Your task to perform on an android device: manage bookmarks in the chrome app Image 0: 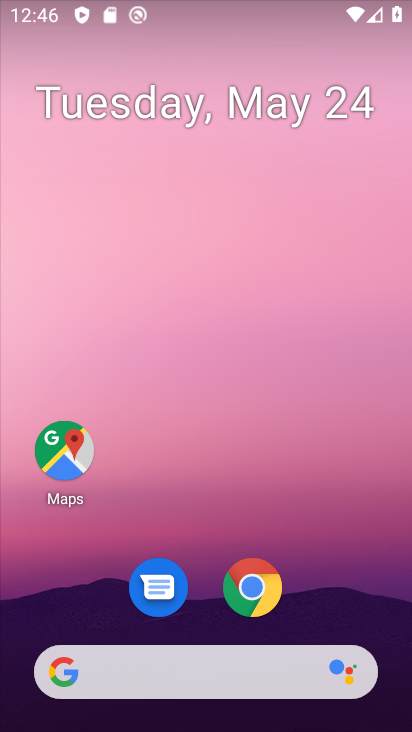
Step 0: click (263, 601)
Your task to perform on an android device: manage bookmarks in the chrome app Image 1: 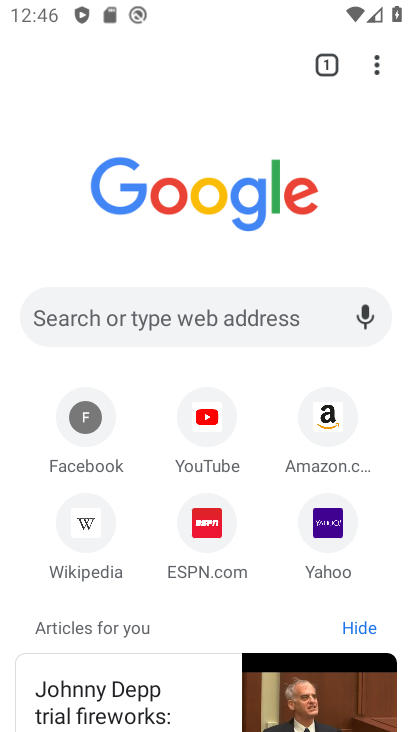
Step 1: click (380, 77)
Your task to perform on an android device: manage bookmarks in the chrome app Image 2: 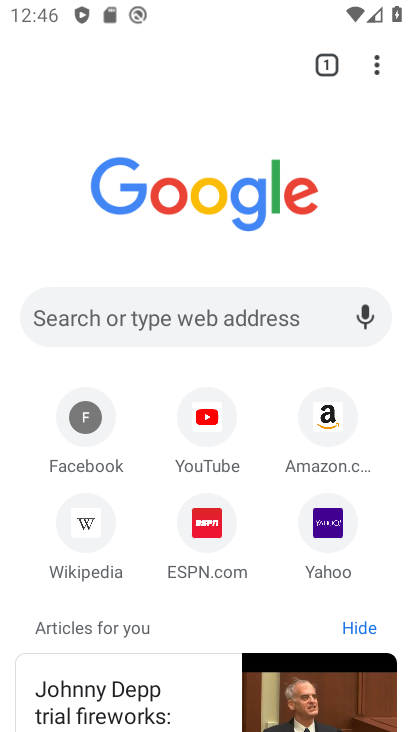
Step 2: task complete